Your task to perform on an android device: Toggle the flashlight Image 0: 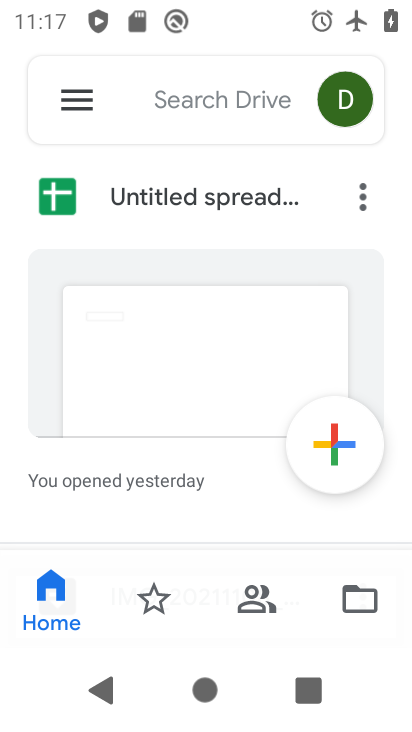
Step 0: press home button
Your task to perform on an android device: Toggle the flashlight Image 1: 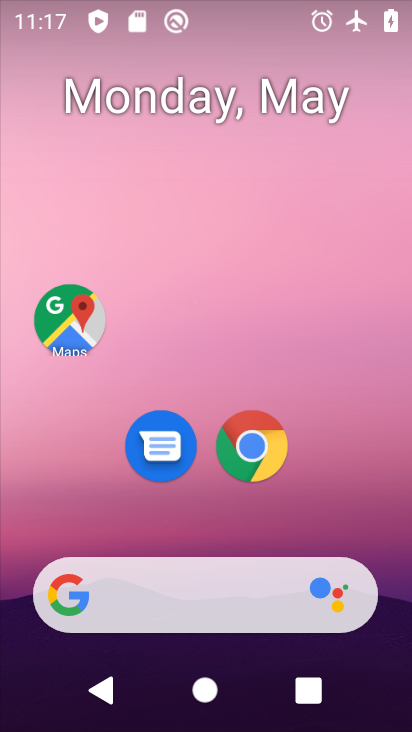
Step 1: drag from (201, 488) to (164, 176)
Your task to perform on an android device: Toggle the flashlight Image 2: 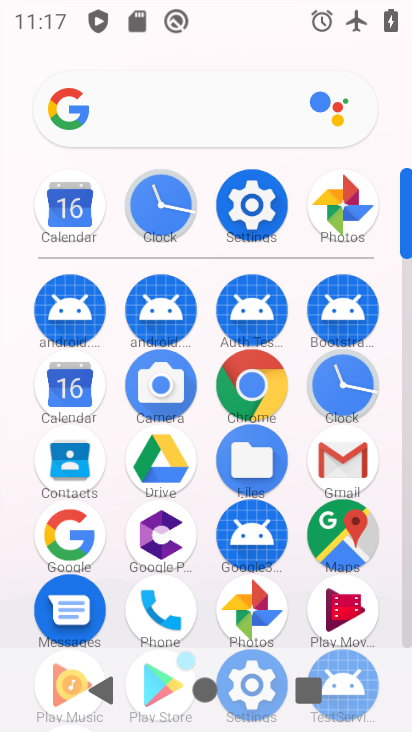
Step 2: click (223, 93)
Your task to perform on an android device: Toggle the flashlight Image 3: 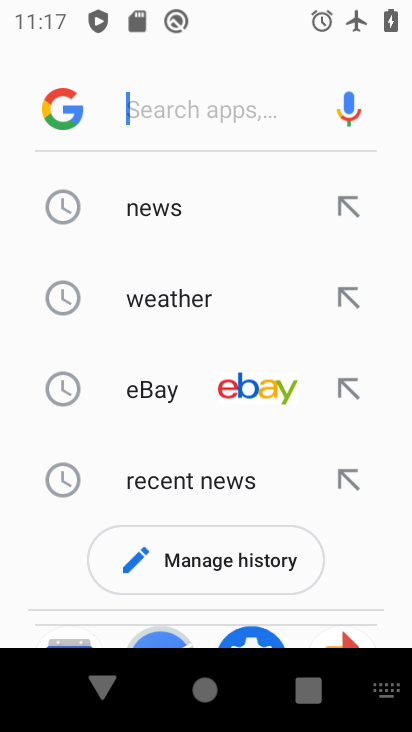
Step 3: press home button
Your task to perform on an android device: Toggle the flashlight Image 4: 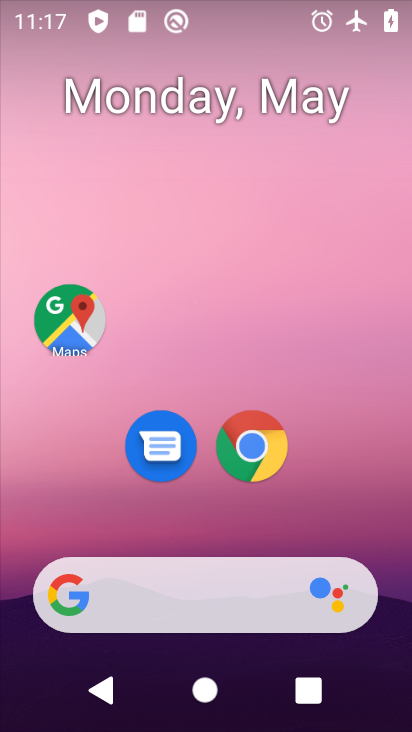
Step 4: drag from (297, 439) to (211, 154)
Your task to perform on an android device: Toggle the flashlight Image 5: 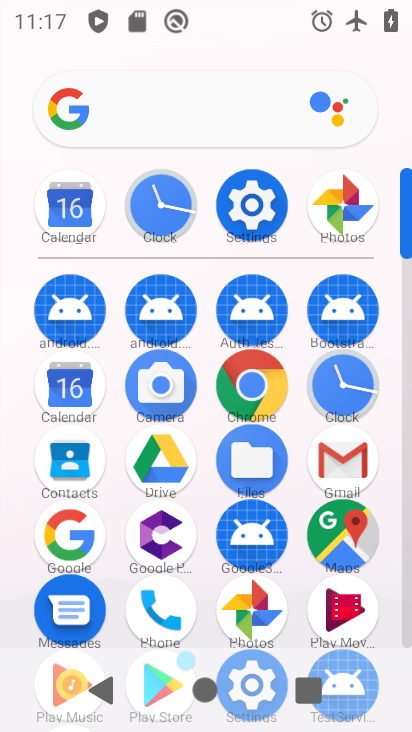
Step 5: click (254, 196)
Your task to perform on an android device: Toggle the flashlight Image 6: 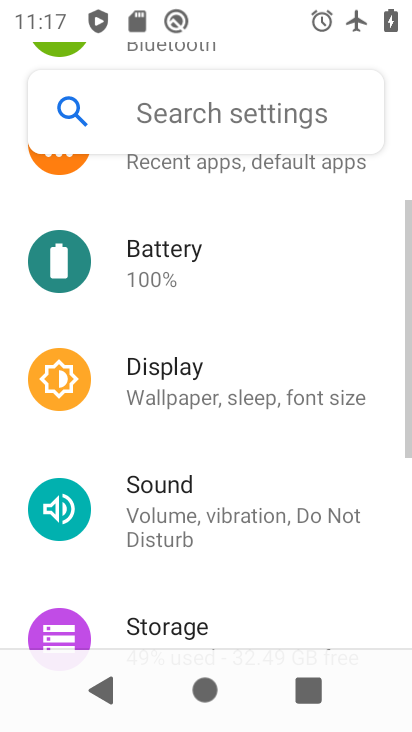
Step 6: click (223, 128)
Your task to perform on an android device: Toggle the flashlight Image 7: 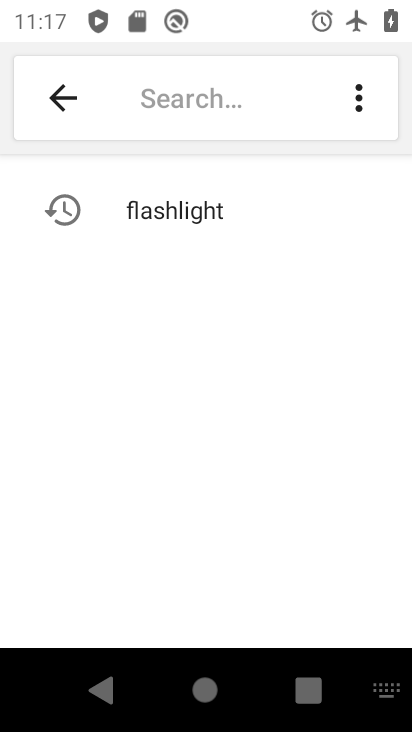
Step 7: click (137, 197)
Your task to perform on an android device: Toggle the flashlight Image 8: 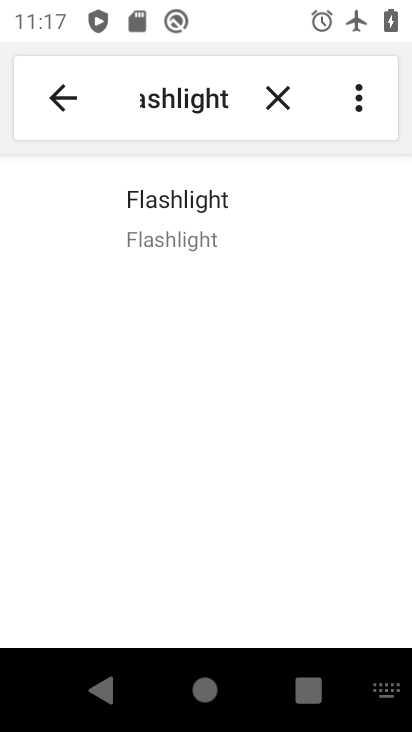
Step 8: click (135, 209)
Your task to perform on an android device: Toggle the flashlight Image 9: 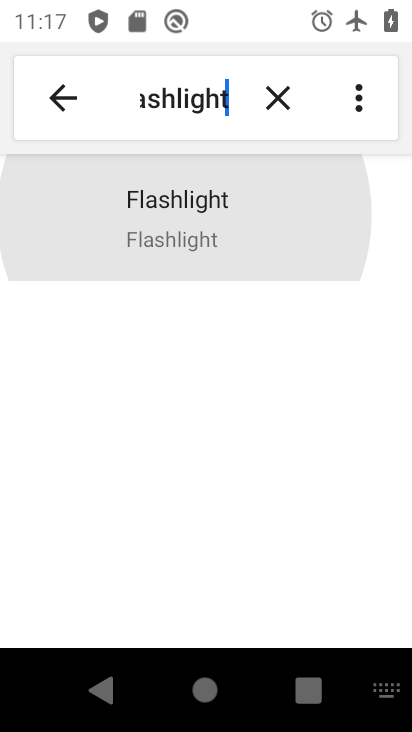
Step 9: click (135, 209)
Your task to perform on an android device: Toggle the flashlight Image 10: 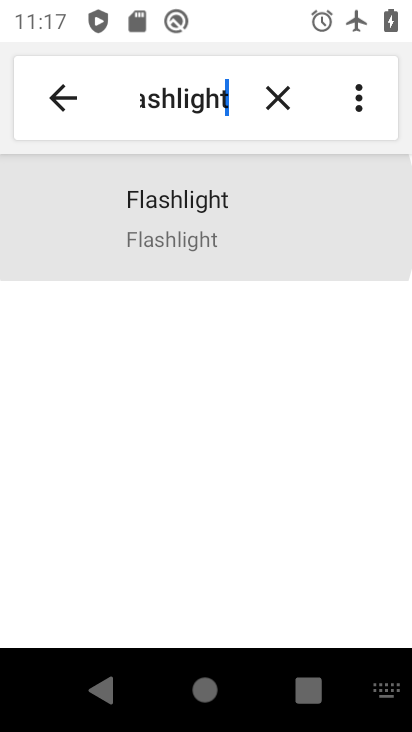
Step 10: click (157, 228)
Your task to perform on an android device: Toggle the flashlight Image 11: 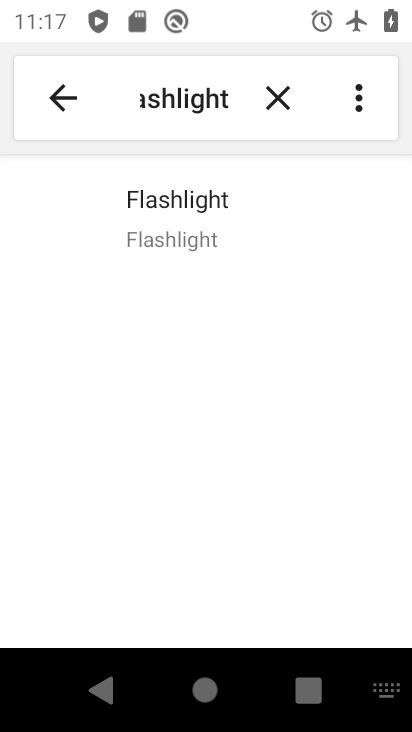
Step 11: task complete